Your task to perform on an android device: manage bookmarks in the chrome app Image 0: 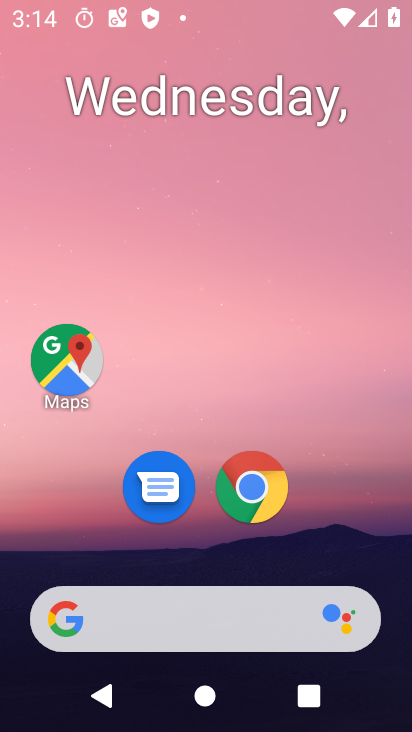
Step 0: press home button
Your task to perform on an android device: manage bookmarks in the chrome app Image 1: 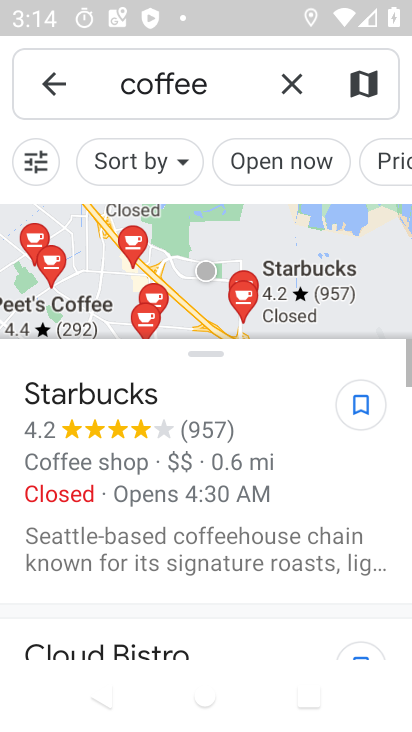
Step 1: drag from (243, 593) to (241, 467)
Your task to perform on an android device: manage bookmarks in the chrome app Image 2: 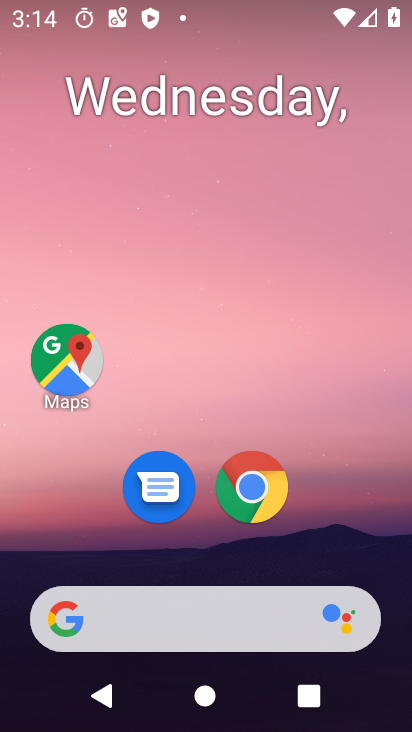
Step 2: press home button
Your task to perform on an android device: manage bookmarks in the chrome app Image 3: 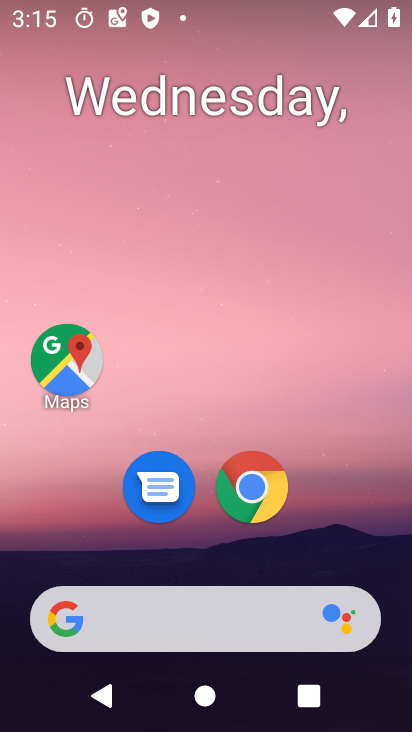
Step 3: click (264, 508)
Your task to perform on an android device: manage bookmarks in the chrome app Image 4: 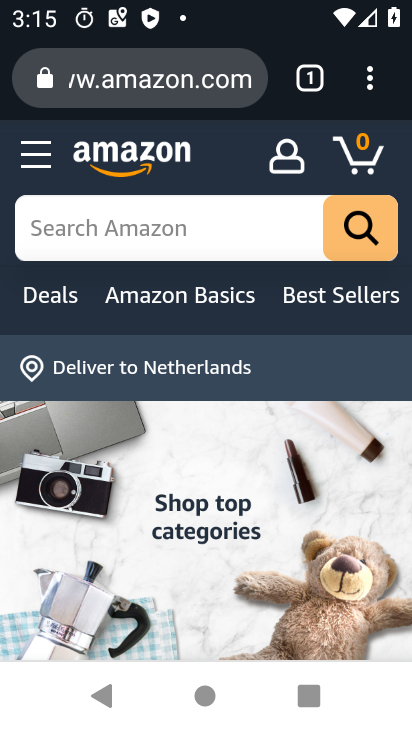
Step 4: click (368, 98)
Your task to perform on an android device: manage bookmarks in the chrome app Image 5: 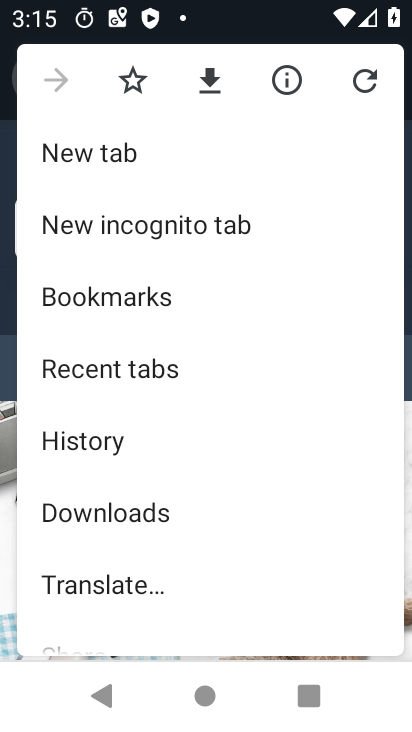
Step 5: click (114, 309)
Your task to perform on an android device: manage bookmarks in the chrome app Image 6: 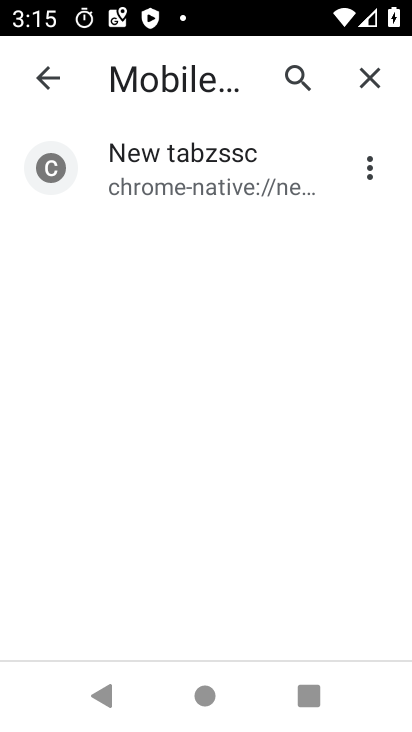
Step 6: task complete